Your task to perform on an android device: turn on javascript in the chrome app Image 0: 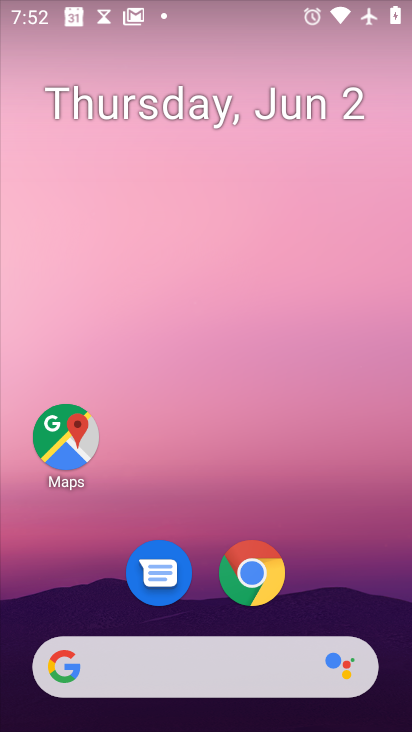
Step 0: click (257, 604)
Your task to perform on an android device: turn on javascript in the chrome app Image 1: 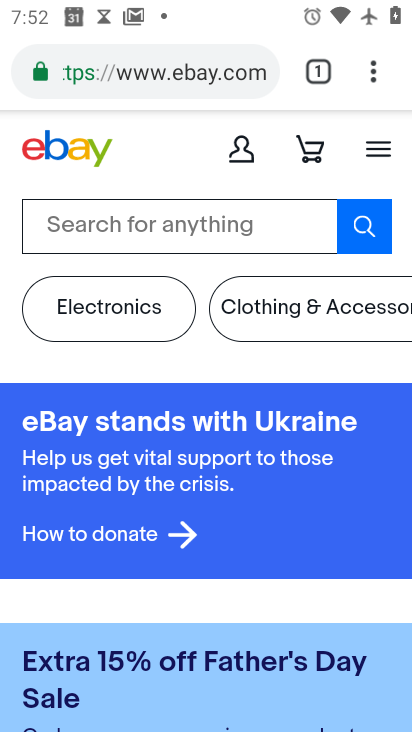
Step 1: drag from (372, 77) to (211, 575)
Your task to perform on an android device: turn on javascript in the chrome app Image 2: 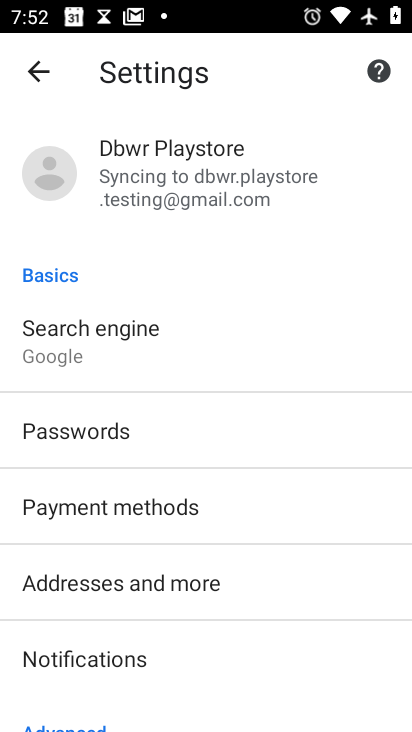
Step 2: drag from (187, 673) to (331, 193)
Your task to perform on an android device: turn on javascript in the chrome app Image 3: 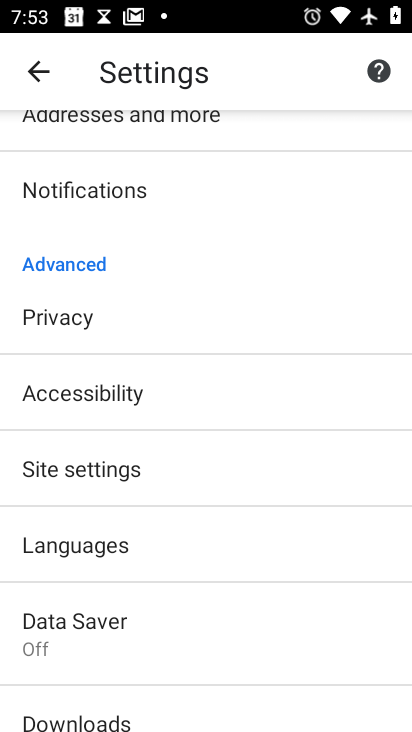
Step 3: click (162, 478)
Your task to perform on an android device: turn on javascript in the chrome app Image 4: 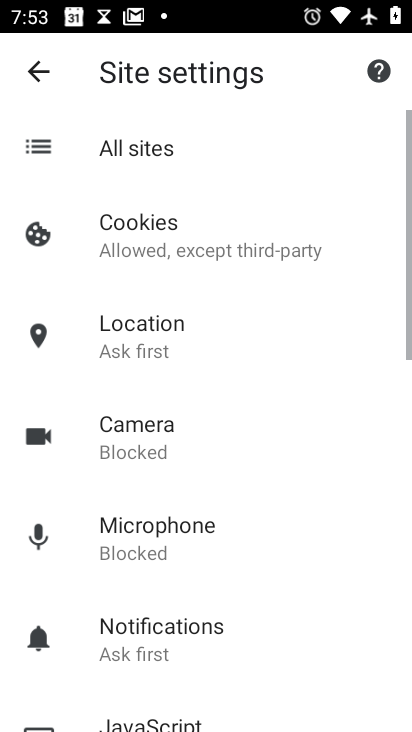
Step 4: drag from (243, 642) to (345, 245)
Your task to perform on an android device: turn on javascript in the chrome app Image 5: 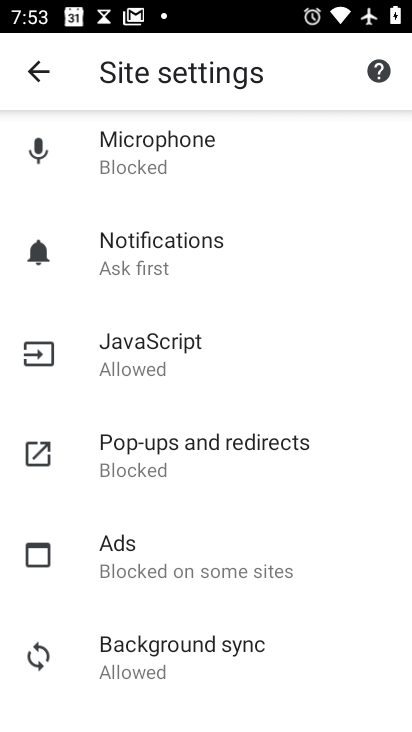
Step 5: click (151, 347)
Your task to perform on an android device: turn on javascript in the chrome app Image 6: 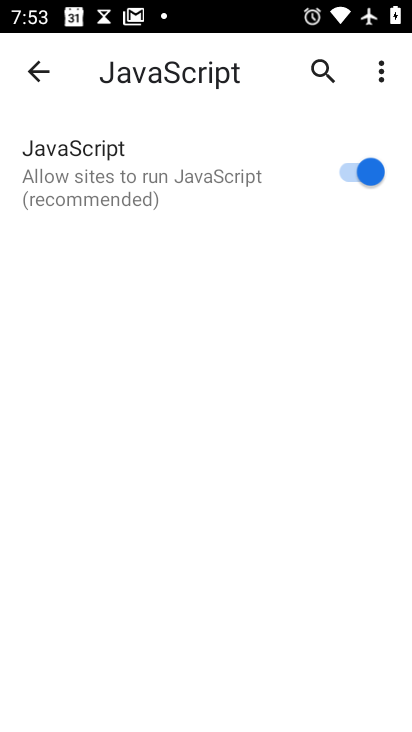
Step 6: task complete